Your task to perform on an android device: open a bookmark in the chrome app Image 0: 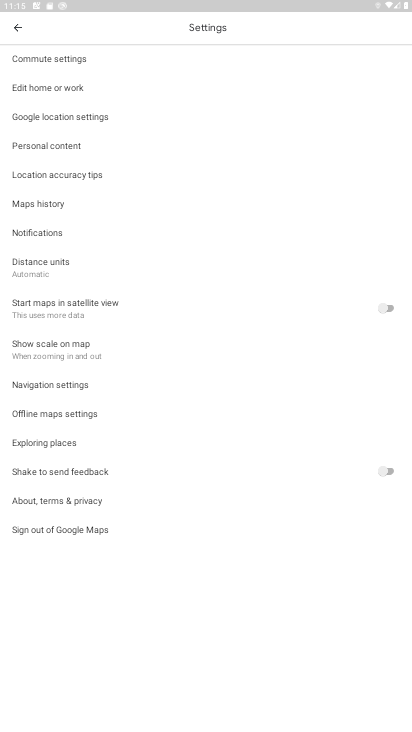
Step 0: press home button
Your task to perform on an android device: open a bookmark in the chrome app Image 1: 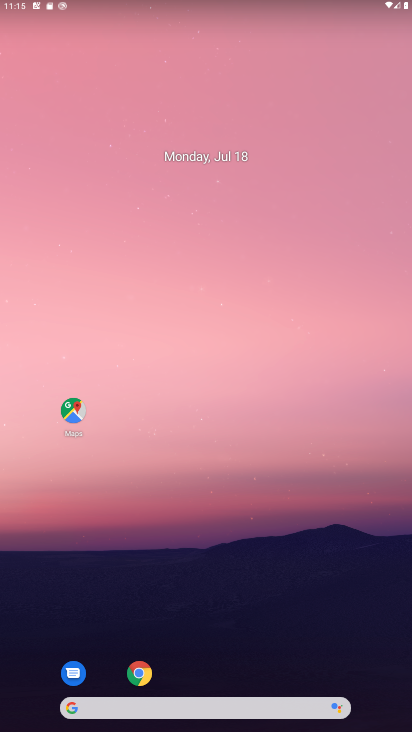
Step 1: click (131, 674)
Your task to perform on an android device: open a bookmark in the chrome app Image 2: 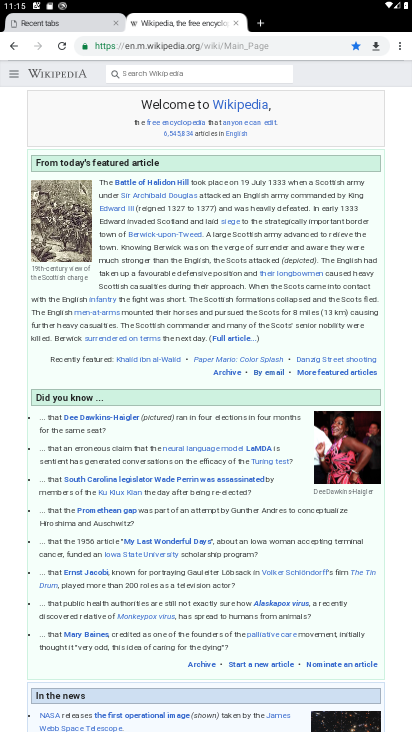
Step 2: click (402, 45)
Your task to perform on an android device: open a bookmark in the chrome app Image 3: 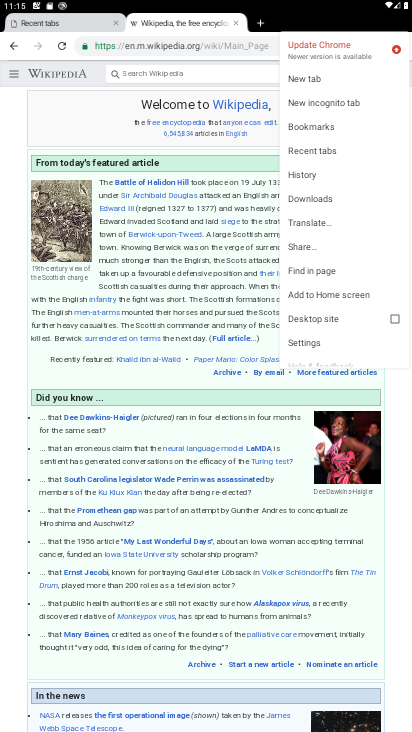
Step 3: click (328, 128)
Your task to perform on an android device: open a bookmark in the chrome app Image 4: 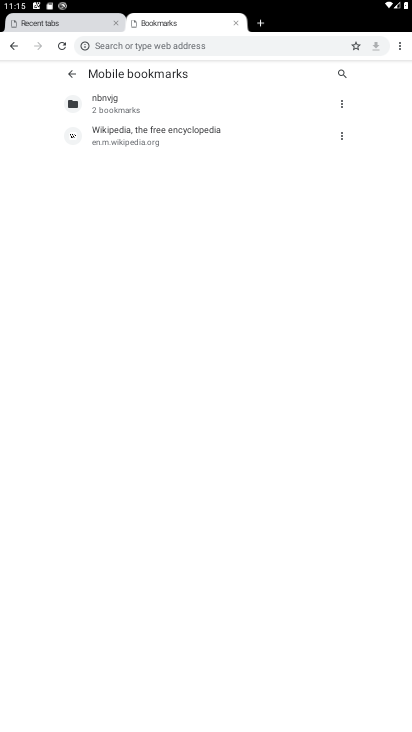
Step 4: click (141, 104)
Your task to perform on an android device: open a bookmark in the chrome app Image 5: 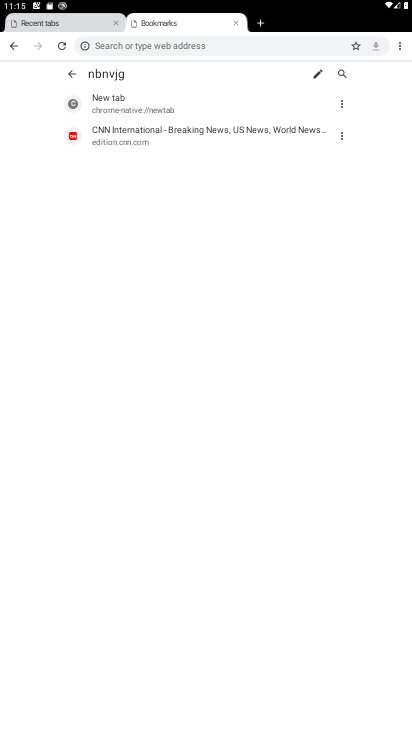
Step 5: click (157, 132)
Your task to perform on an android device: open a bookmark in the chrome app Image 6: 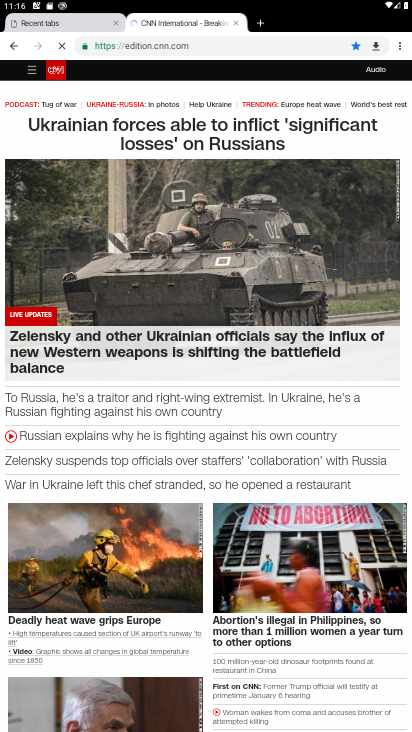
Step 6: task complete